Your task to perform on an android device: set an alarm Image 0: 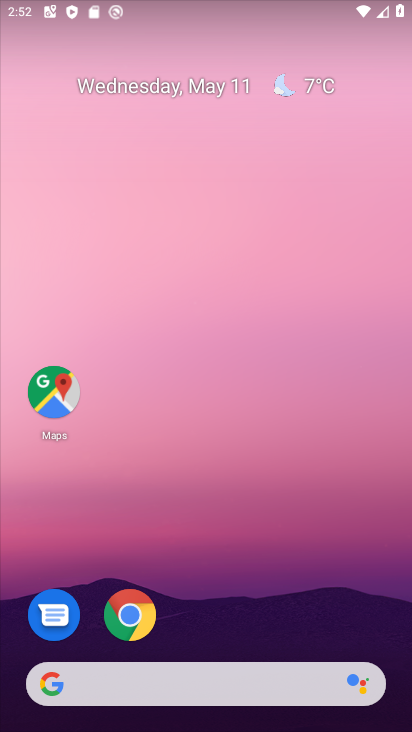
Step 0: drag from (229, 626) to (315, 115)
Your task to perform on an android device: set an alarm Image 1: 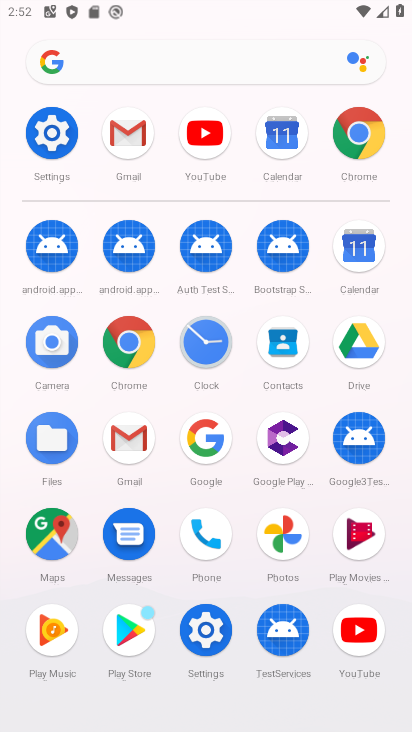
Step 1: click (204, 348)
Your task to perform on an android device: set an alarm Image 2: 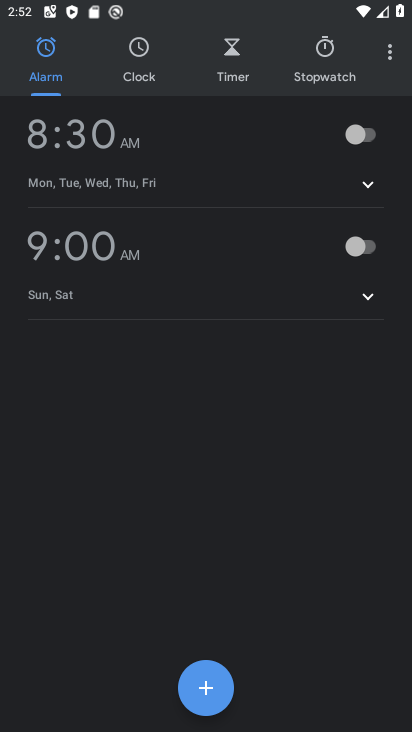
Step 2: click (191, 680)
Your task to perform on an android device: set an alarm Image 3: 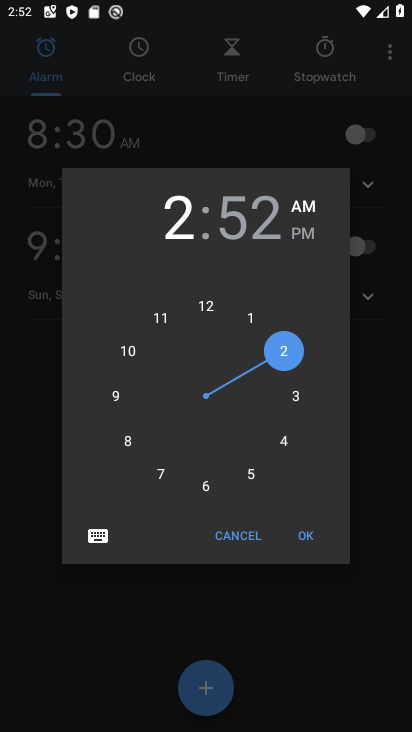
Step 3: click (307, 534)
Your task to perform on an android device: set an alarm Image 4: 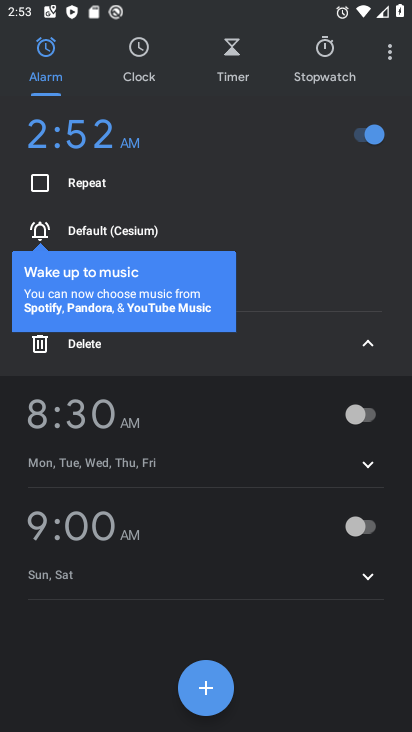
Step 4: task complete